Your task to perform on an android device: turn on wifi Image 0: 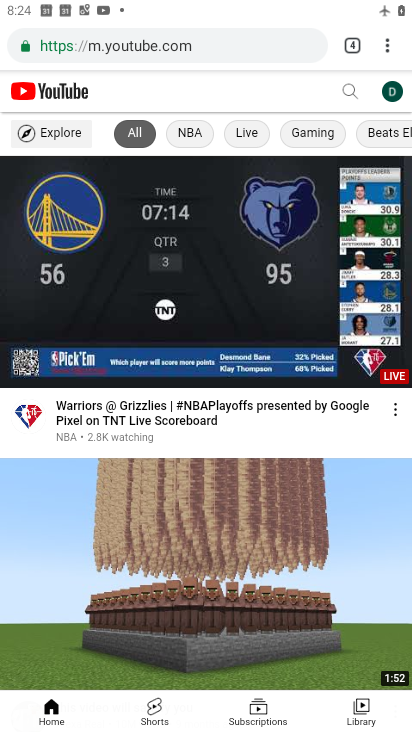
Step 0: press home button
Your task to perform on an android device: turn on wifi Image 1: 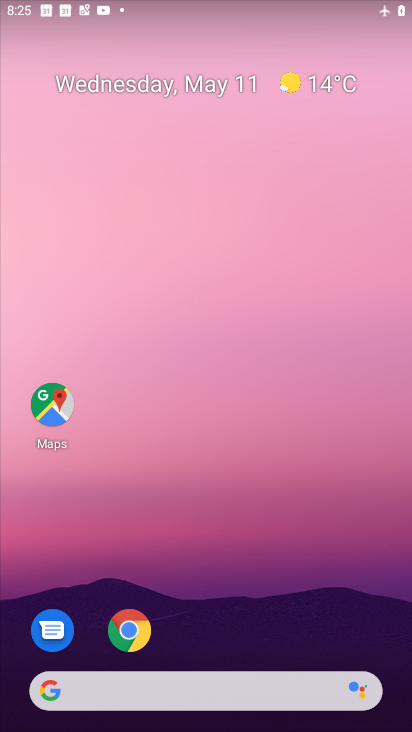
Step 1: drag from (239, 664) to (302, 3)
Your task to perform on an android device: turn on wifi Image 2: 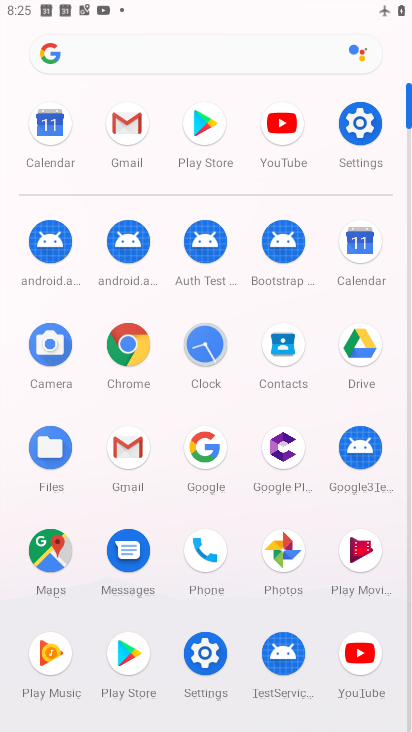
Step 2: click (373, 119)
Your task to perform on an android device: turn on wifi Image 3: 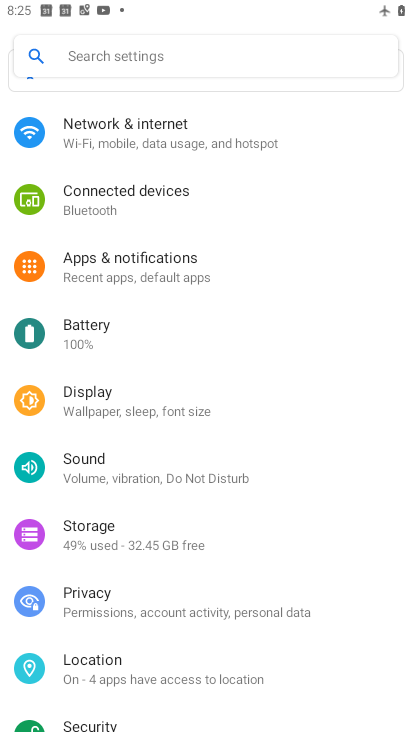
Step 3: click (140, 145)
Your task to perform on an android device: turn on wifi Image 4: 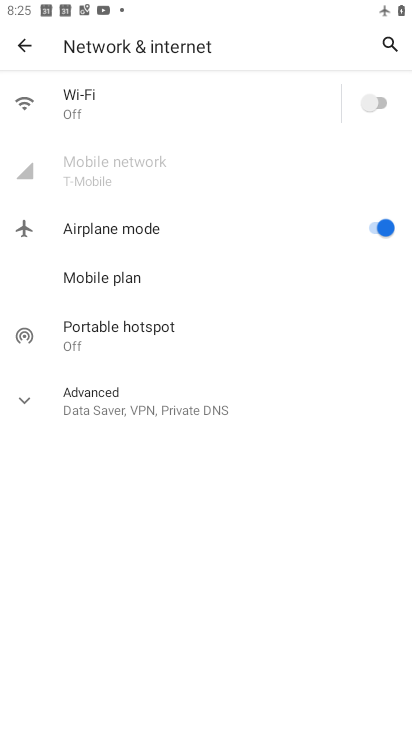
Step 4: click (380, 104)
Your task to perform on an android device: turn on wifi Image 5: 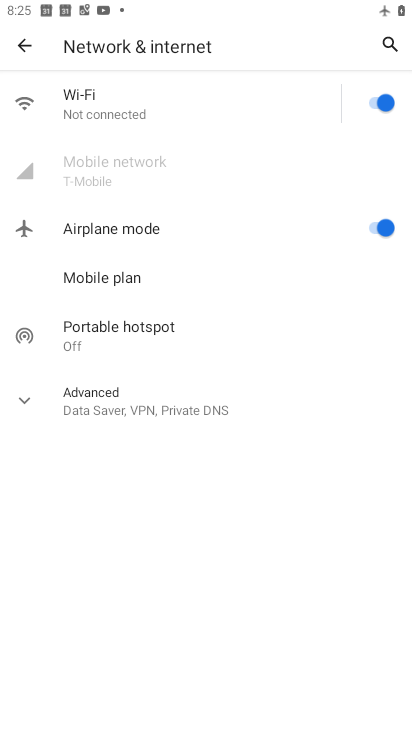
Step 5: task complete